Your task to perform on an android device: Open Amazon Image 0: 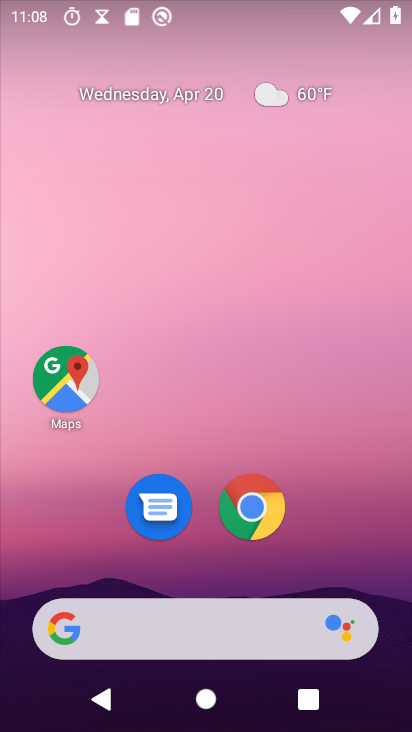
Step 0: click (255, 498)
Your task to perform on an android device: Open Amazon Image 1: 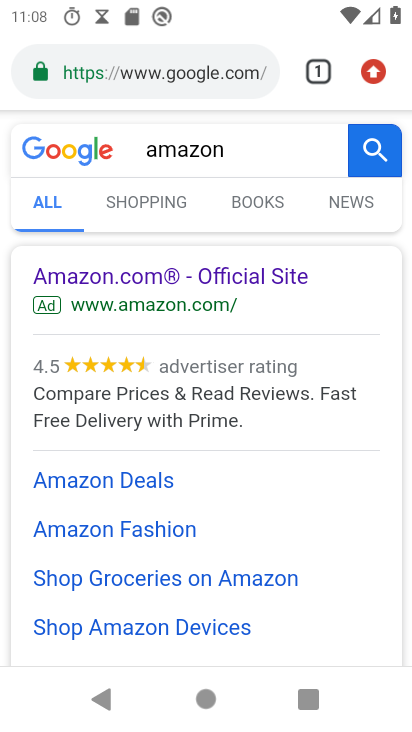
Step 1: click (174, 70)
Your task to perform on an android device: Open Amazon Image 2: 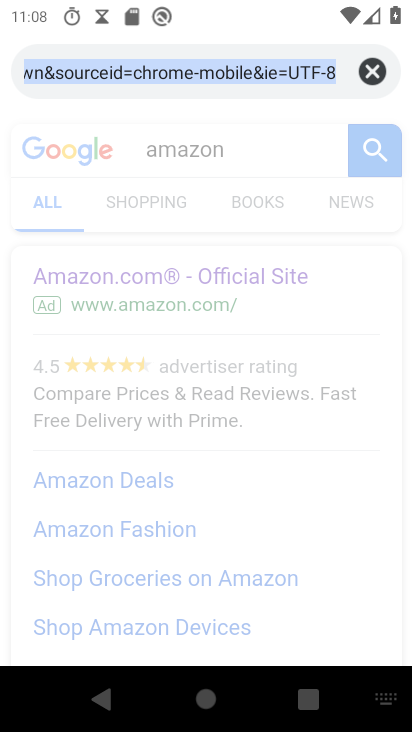
Step 2: type "Amazon"
Your task to perform on an android device: Open Amazon Image 3: 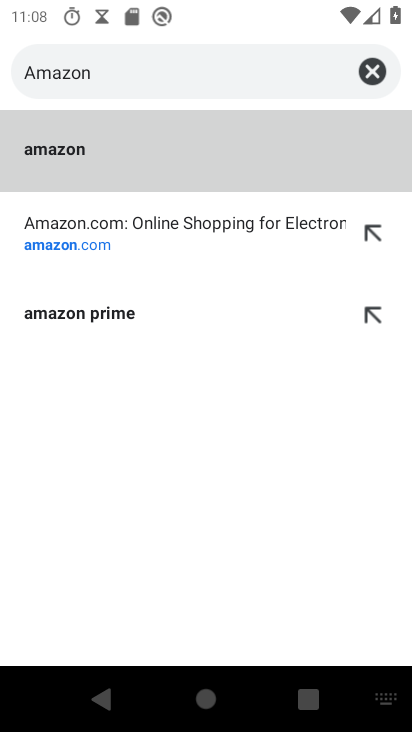
Step 3: click (65, 132)
Your task to perform on an android device: Open Amazon Image 4: 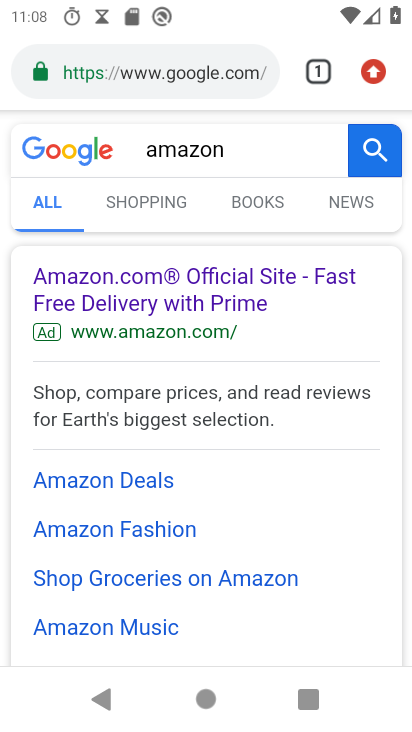
Step 4: task complete